Your task to perform on an android device: Go to Android settings Image 0: 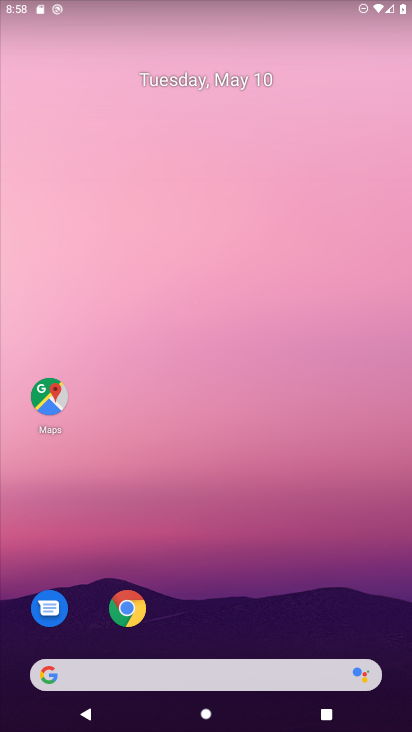
Step 0: drag from (345, 616) to (295, 86)
Your task to perform on an android device: Go to Android settings Image 1: 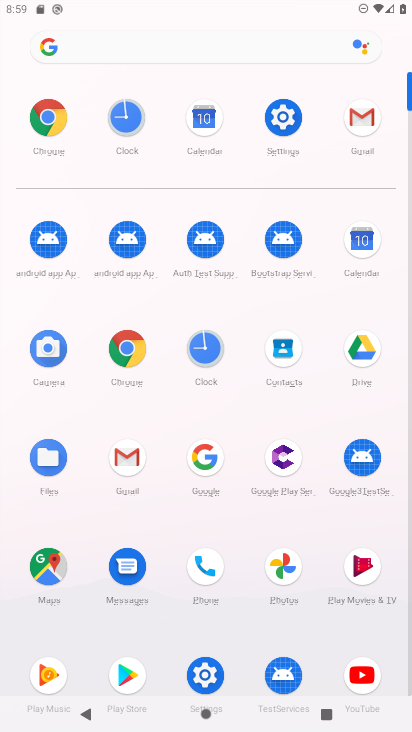
Step 1: click (191, 670)
Your task to perform on an android device: Go to Android settings Image 2: 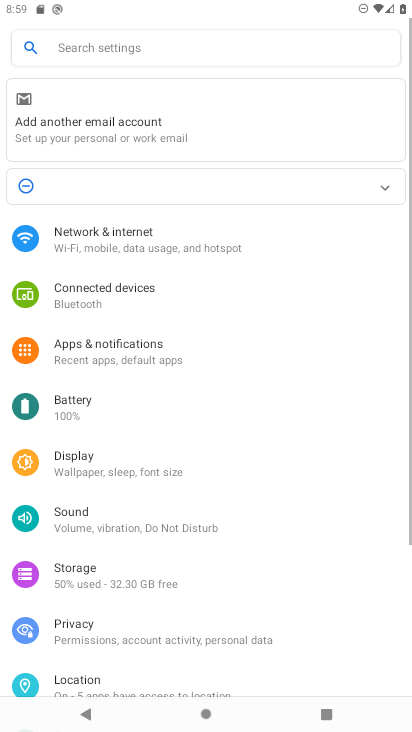
Step 2: drag from (216, 633) to (213, 19)
Your task to perform on an android device: Go to Android settings Image 3: 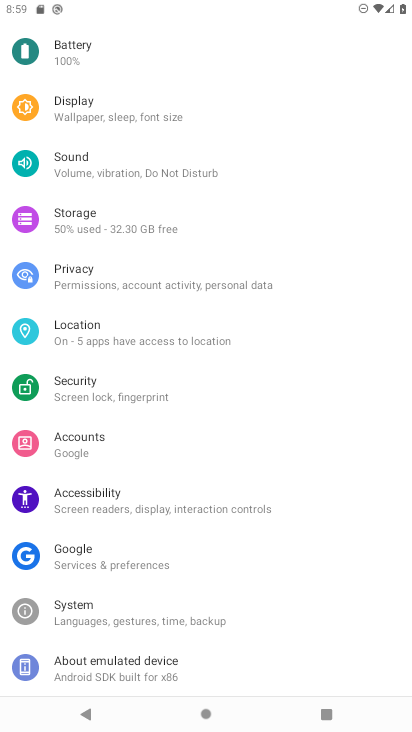
Step 3: click (138, 667)
Your task to perform on an android device: Go to Android settings Image 4: 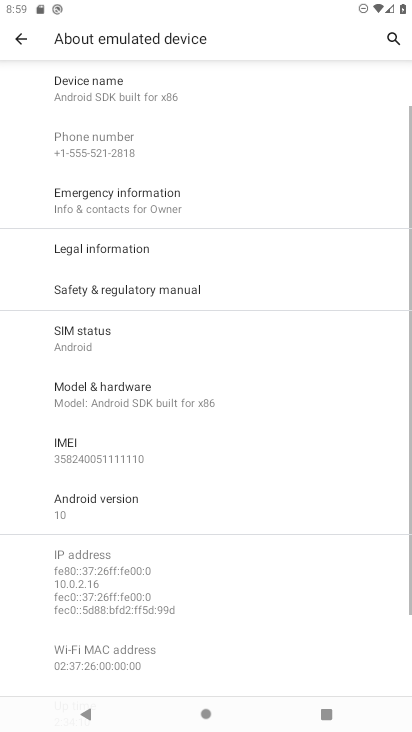
Step 4: click (145, 506)
Your task to perform on an android device: Go to Android settings Image 5: 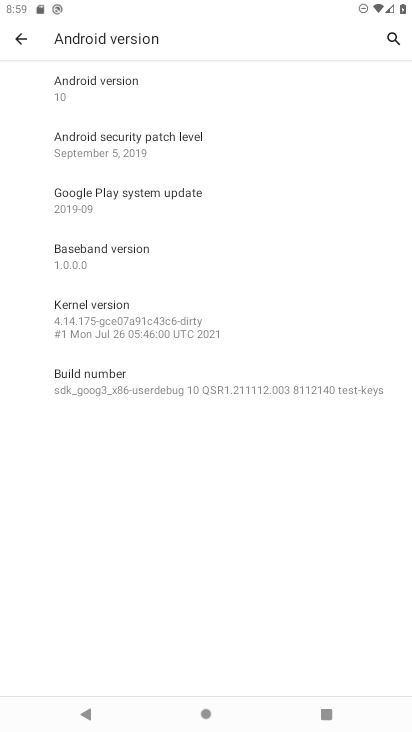
Step 5: task complete